Your task to perform on an android device: Search for Italian restaurants on Maps Image 0: 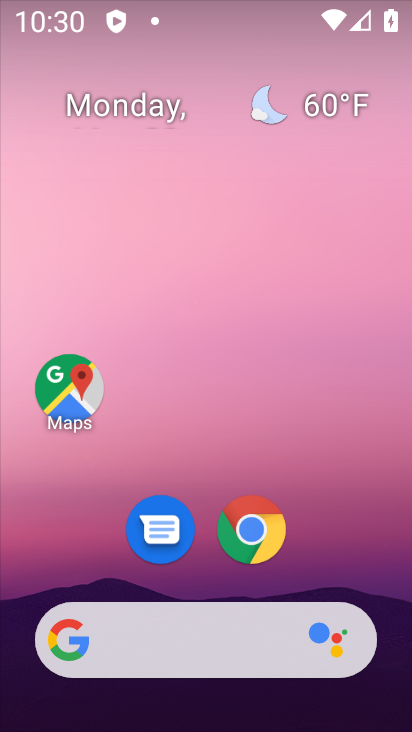
Step 0: click (66, 382)
Your task to perform on an android device: Search for Italian restaurants on Maps Image 1: 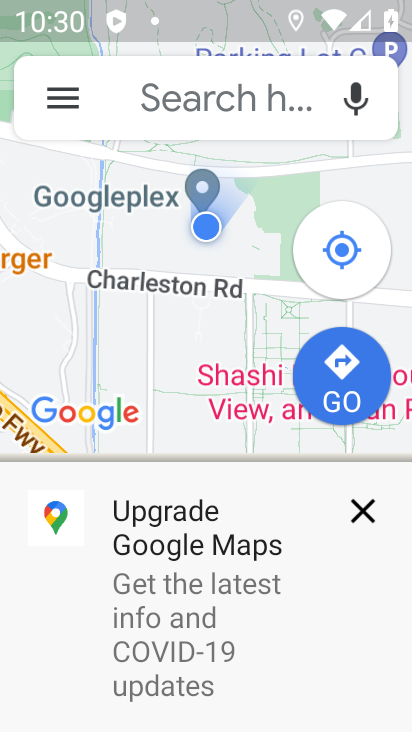
Step 1: click (221, 92)
Your task to perform on an android device: Search for Italian restaurants on Maps Image 2: 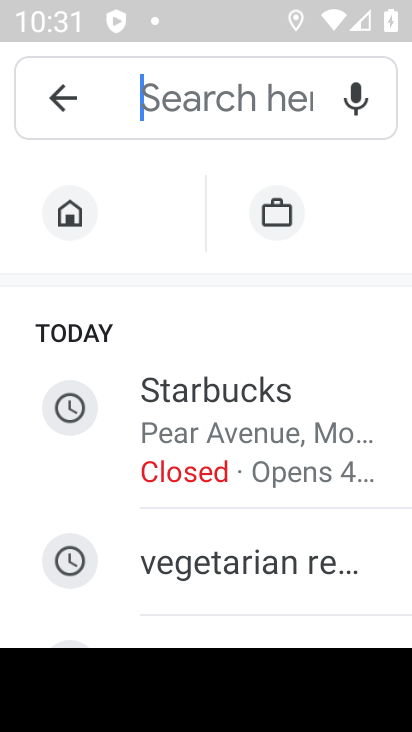
Step 2: type "italian"
Your task to perform on an android device: Search for Italian restaurants on Maps Image 3: 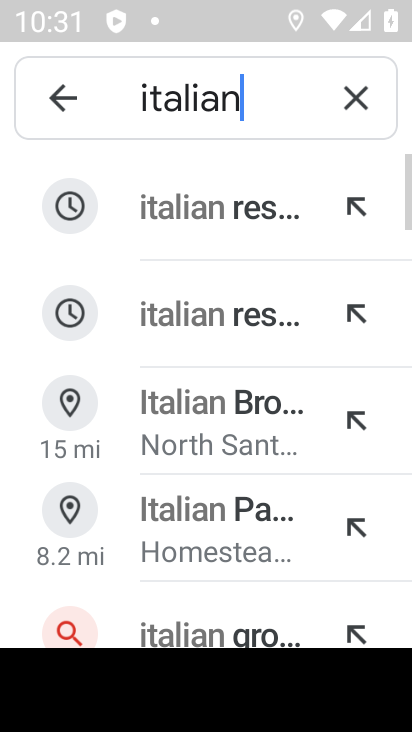
Step 3: click (203, 212)
Your task to perform on an android device: Search for Italian restaurants on Maps Image 4: 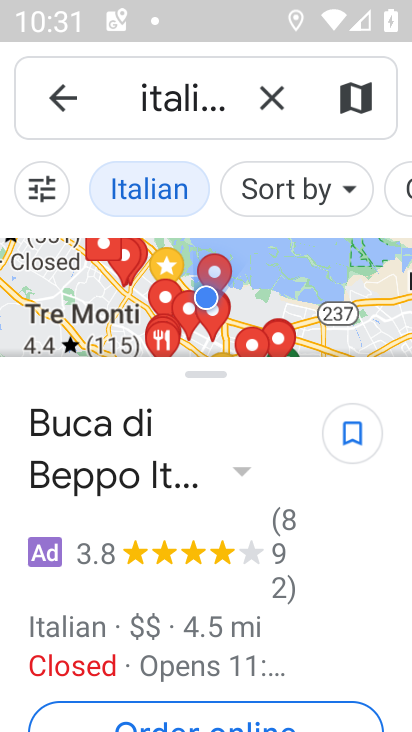
Step 4: task complete